Your task to perform on an android device: see tabs open on other devices in the chrome app Image 0: 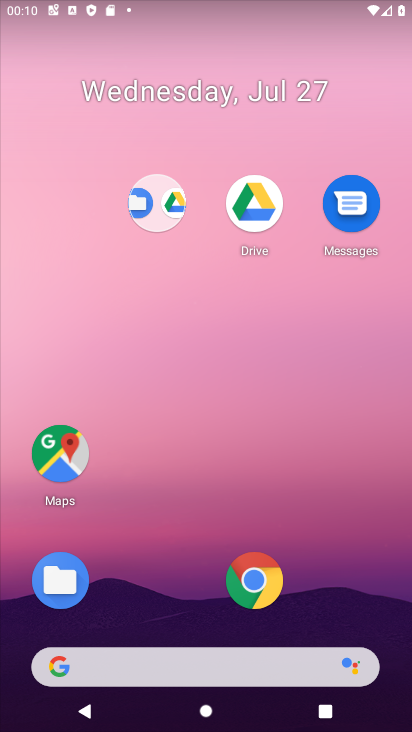
Step 0: click (241, 593)
Your task to perform on an android device: see tabs open on other devices in the chrome app Image 1: 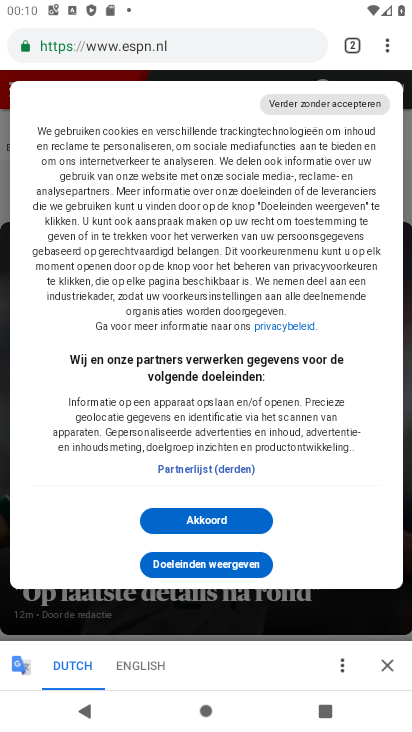
Step 1: click (398, 43)
Your task to perform on an android device: see tabs open on other devices in the chrome app Image 2: 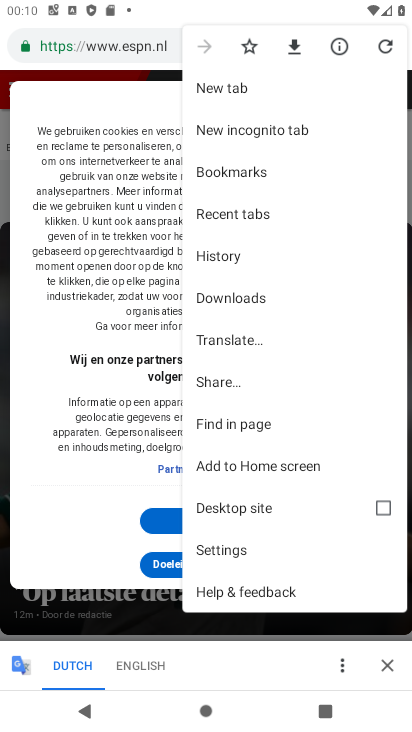
Step 2: click (241, 221)
Your task to perform on an android device: see tabs open on other devices in the chrome app Image 3: 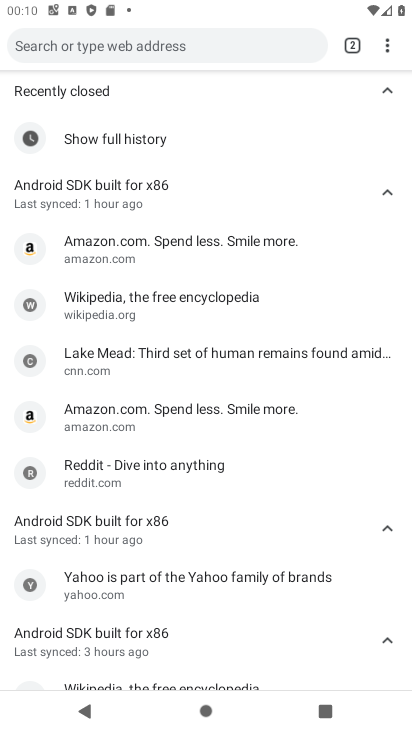
Step 3: task complete